Your task to perform on an android device: Go to sound settings Image 0: 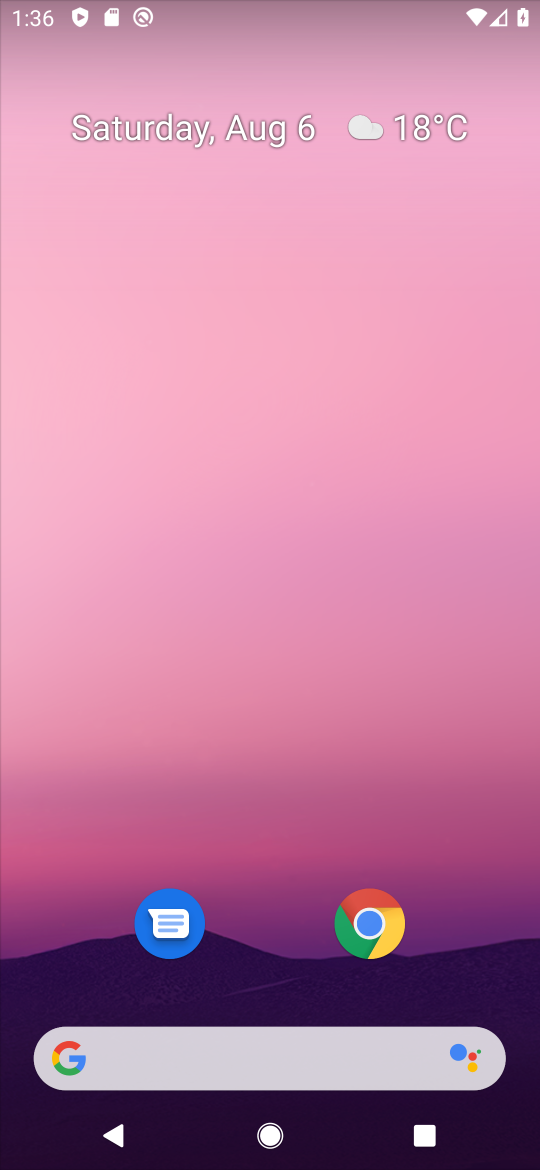
Step 0: click (426, 385)
Your task to perform on an android device: Go to sound settings Image 1: 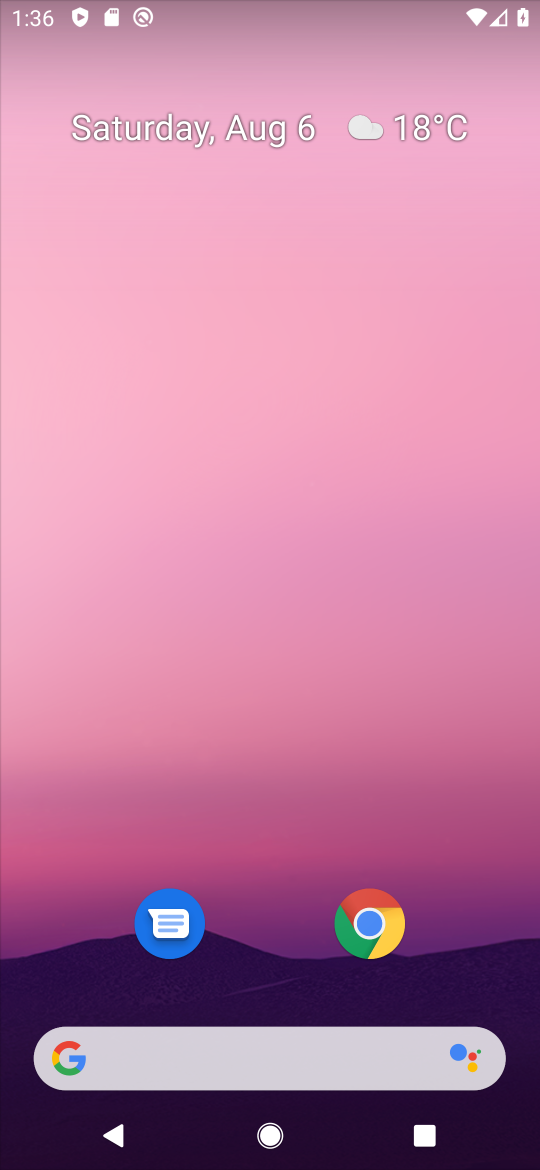
Step 1: press home button
Your task to perform on an android device: Go to sound settings Image 2: 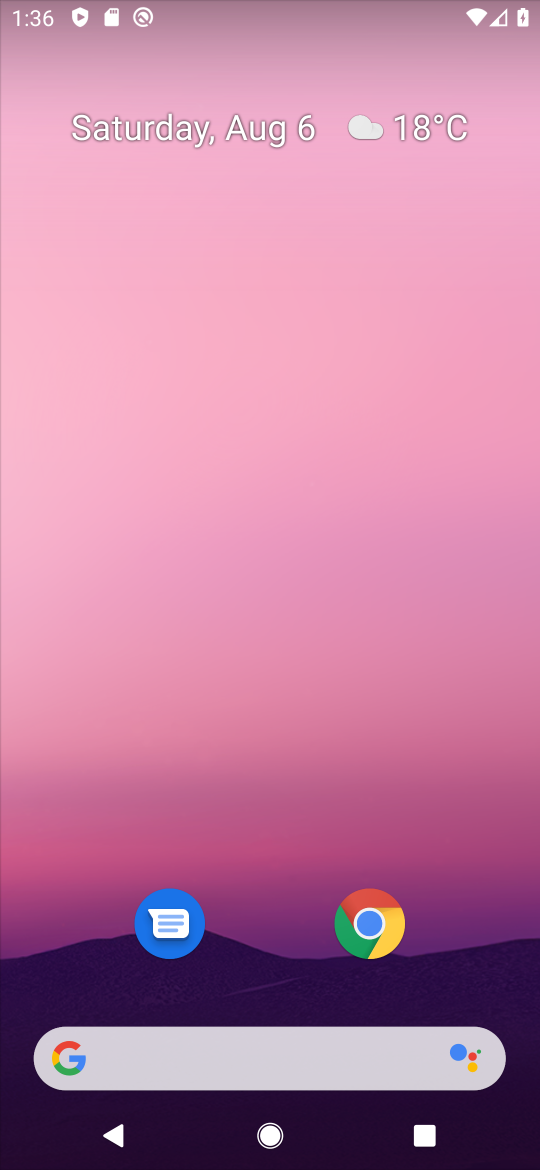
Step 2: drag from (372, 729) to (520, 192)
Your task to perform on an android device: Go to sound settings Image 3: 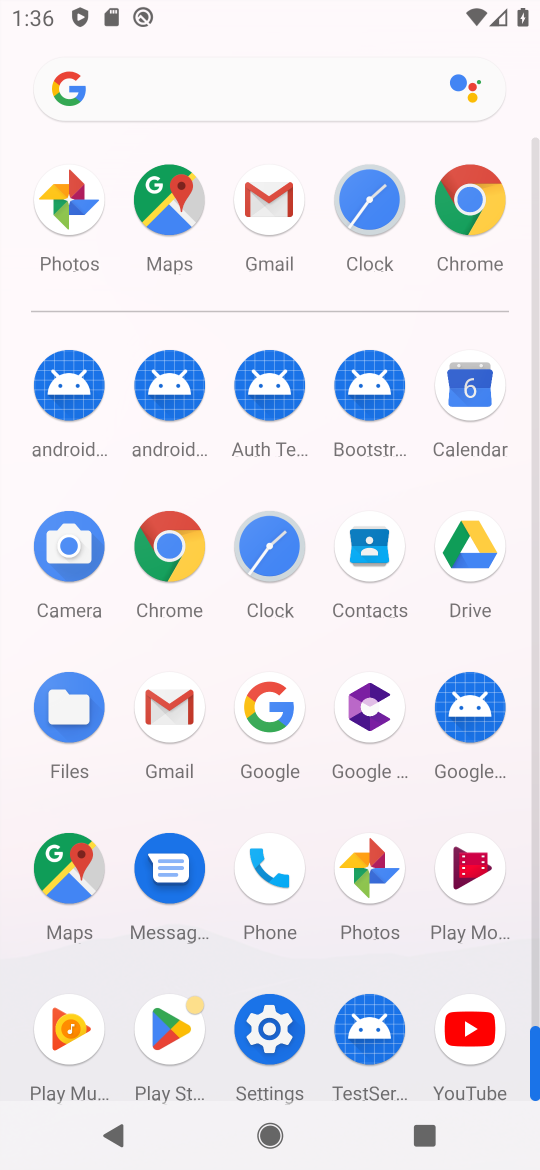
Step 3: click (280, 1013)
Your task to perform on an android device: Go to sound settings Image 4: 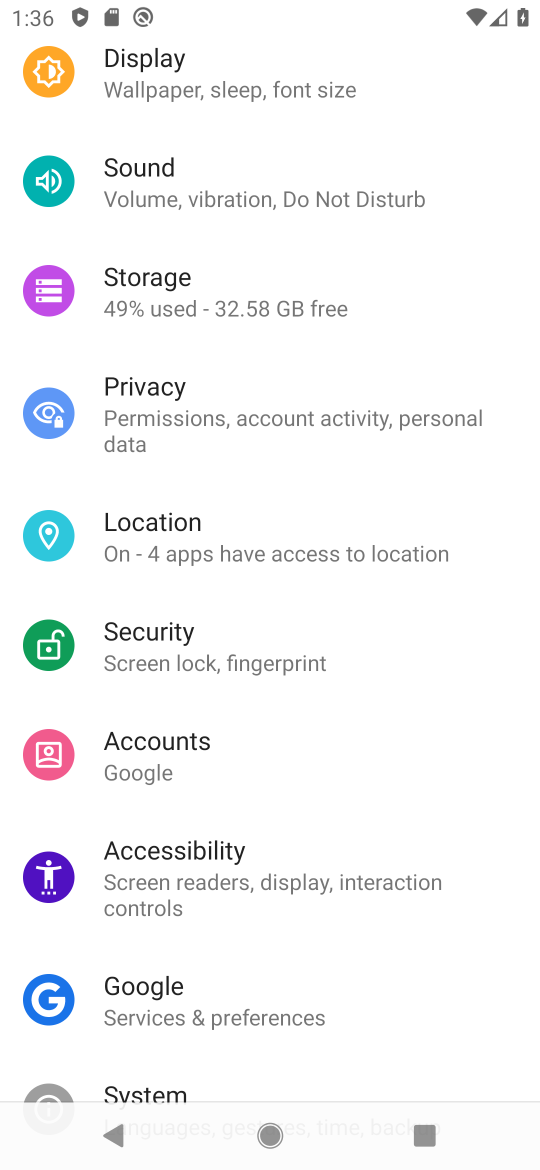
Step 4: click (224, 156)
Your task to perform on an android device: Go to sound settings Image 5: 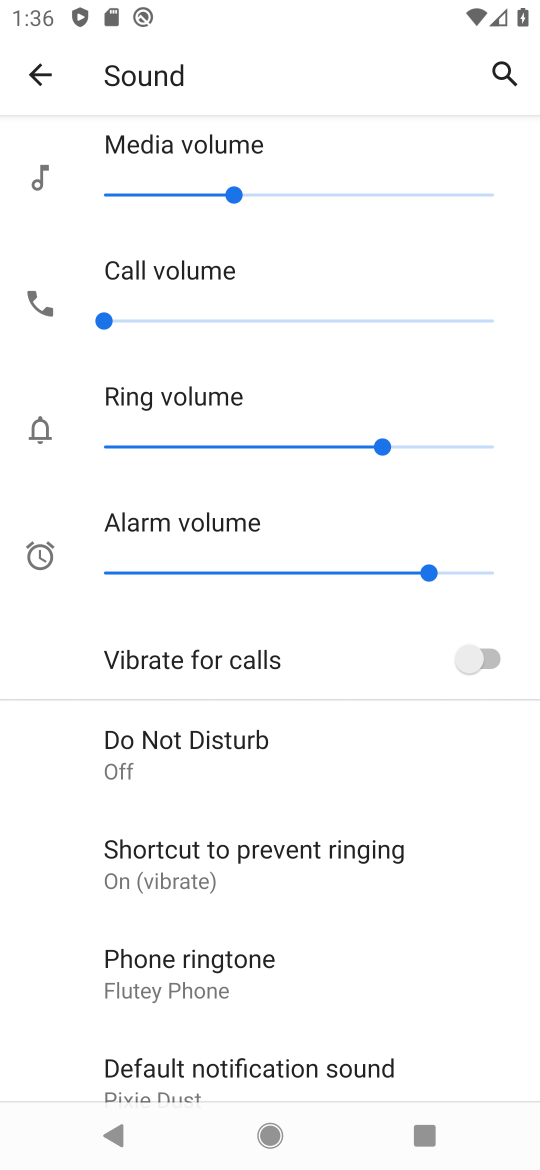
Step 5: task complete